Your task to perform on an android device: Go to Google Image 0: 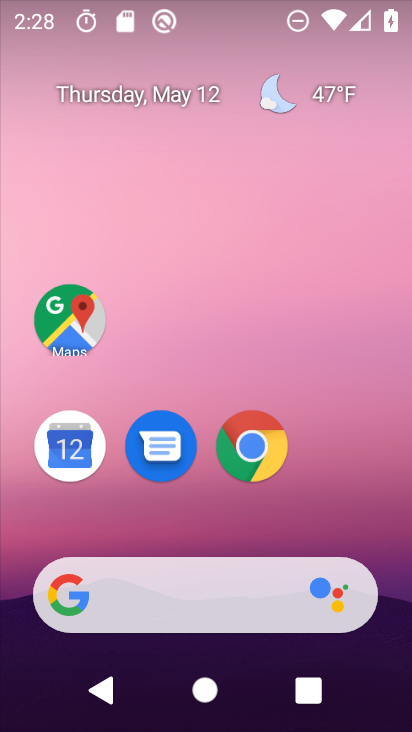
Step 0: drag from (193, 542) to (235, 275)
Your task to perform on an android device: Go to Google Image 1: 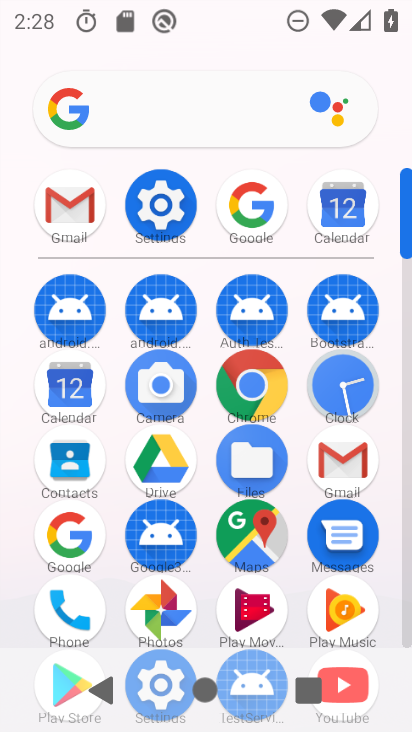
Step 1: click (277, 215)
Your task to perform on an android device: Go to Google Image 2: 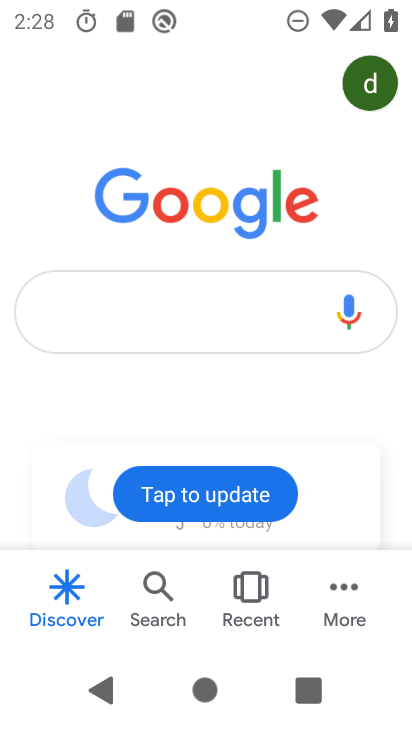
Step 2: task complete